Your task to perform on an android device: Go to Amazon Image 0: 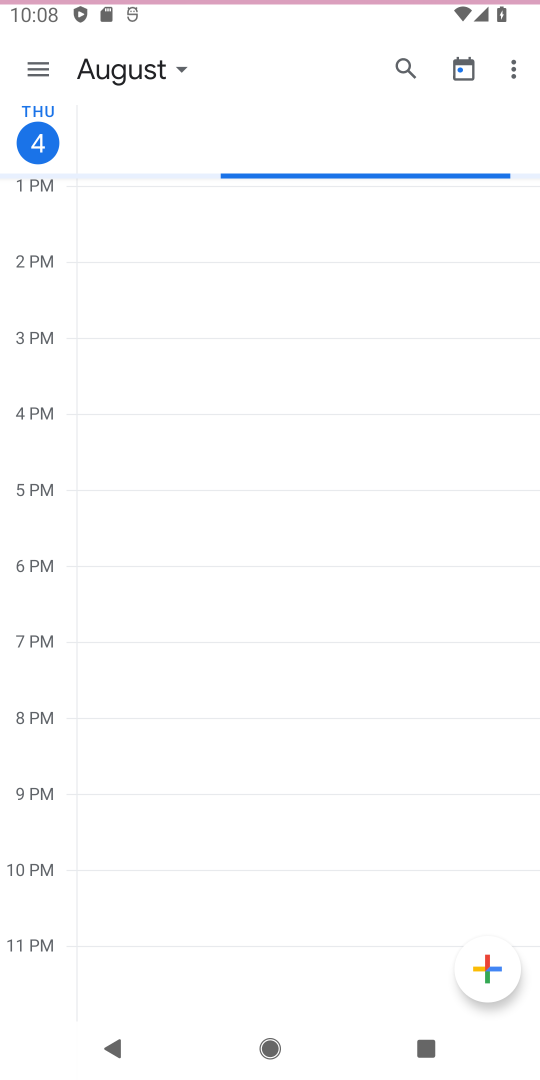
Step 0: press home button
Your task to perform on an android device: Go to Amazon Image 1: 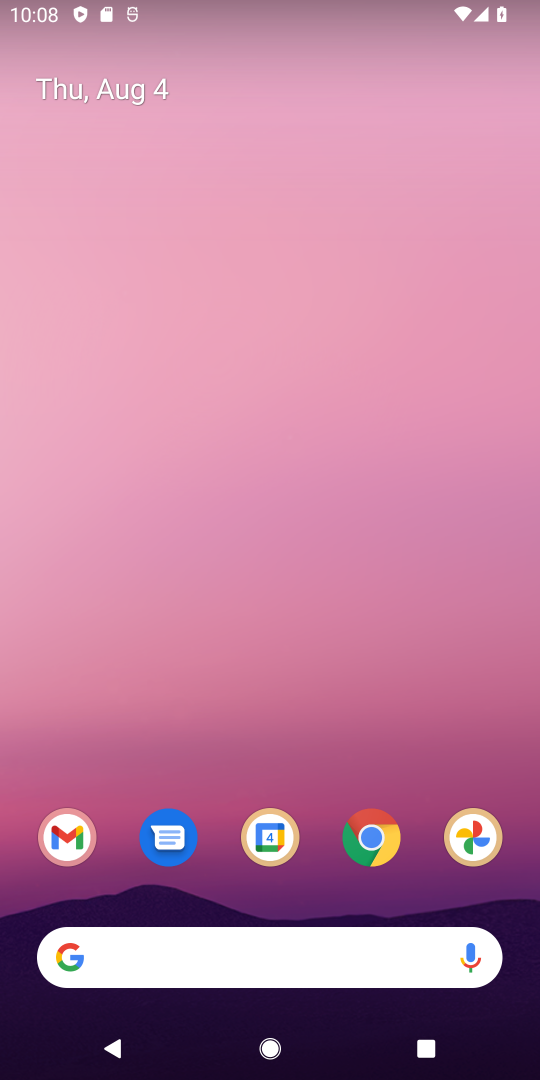
Step 1: drag from (323, 894) to (377, 125)
Your task to perform on an android device: Go to Amazon Image 2: 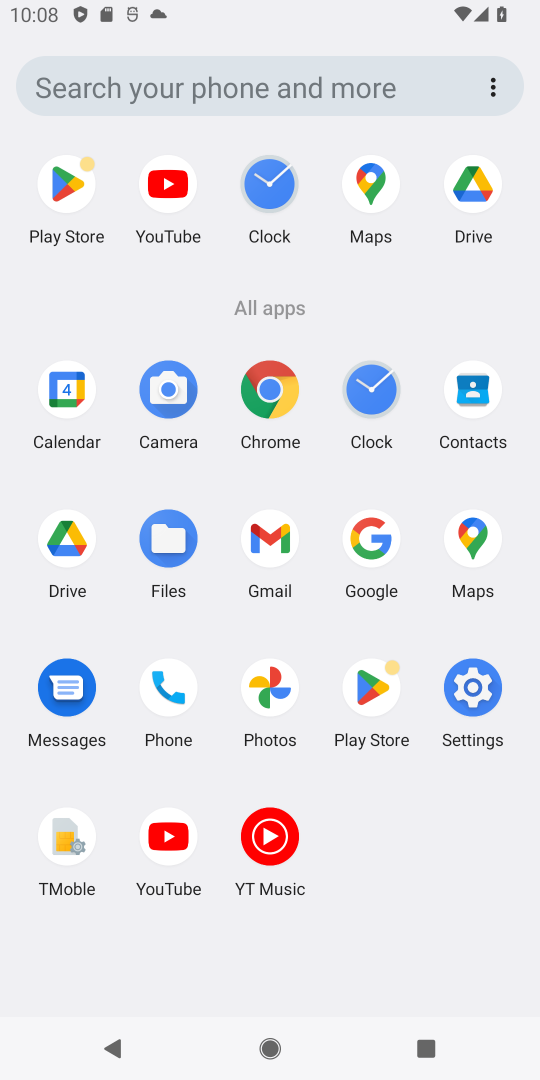
Step 2: click (253, 391)
Your task to perform on an android device: Go to Amazon Image 3: 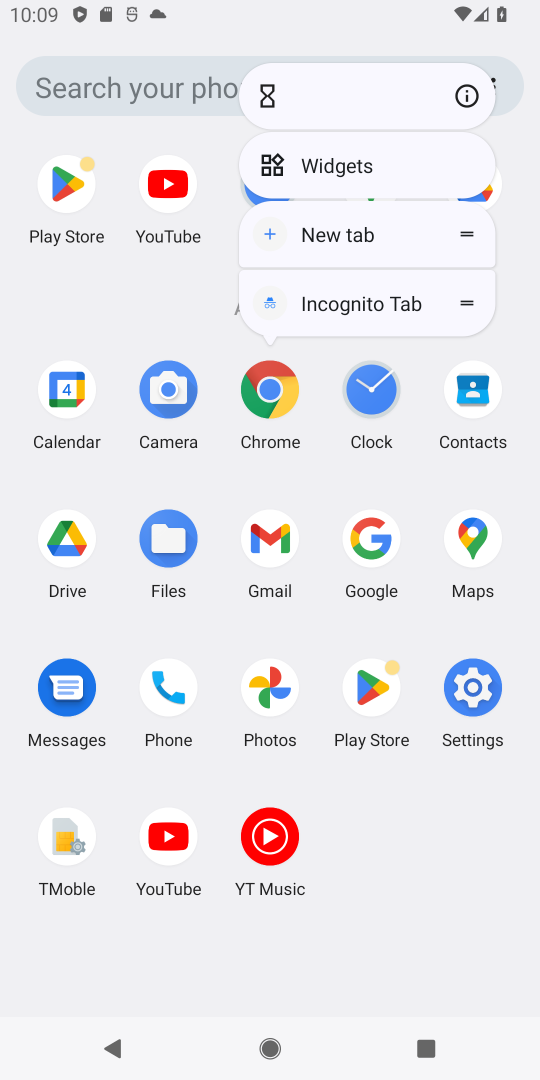
Step 3: click (272, 411)
Your task to perform on an android device: Go to Amazon Image 4: 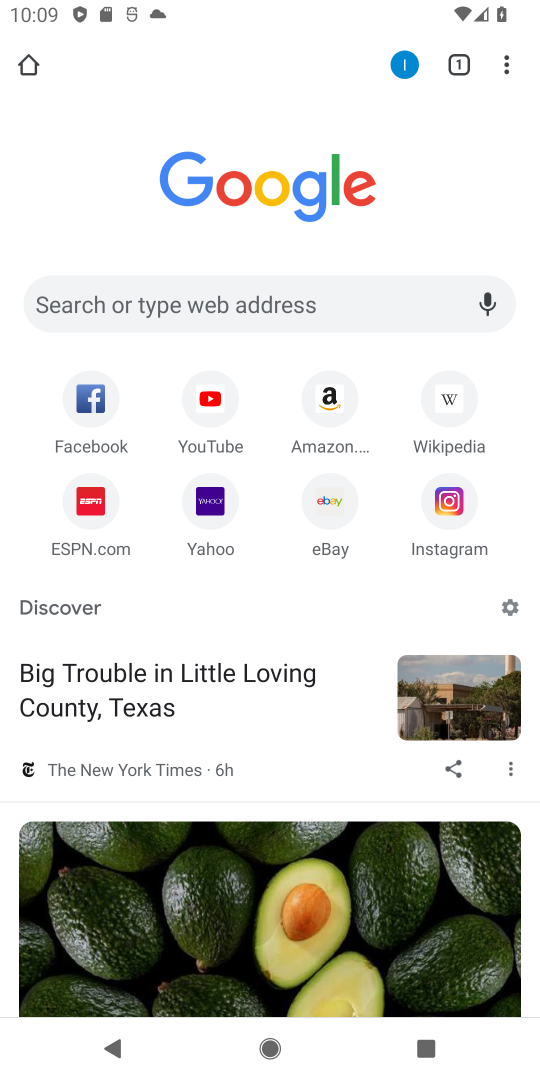
Step 4: click (335, 393)
Your task to perform on an android device: Go to Amazon Image 5: 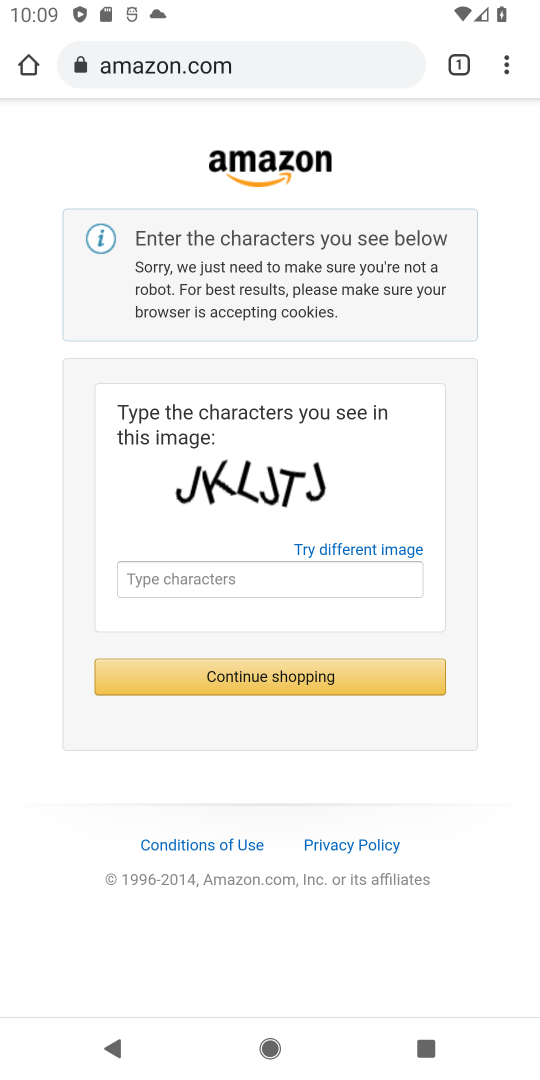
Step 5: task complete